Your task to perform on an android device: Open Google Chrome Image 0: 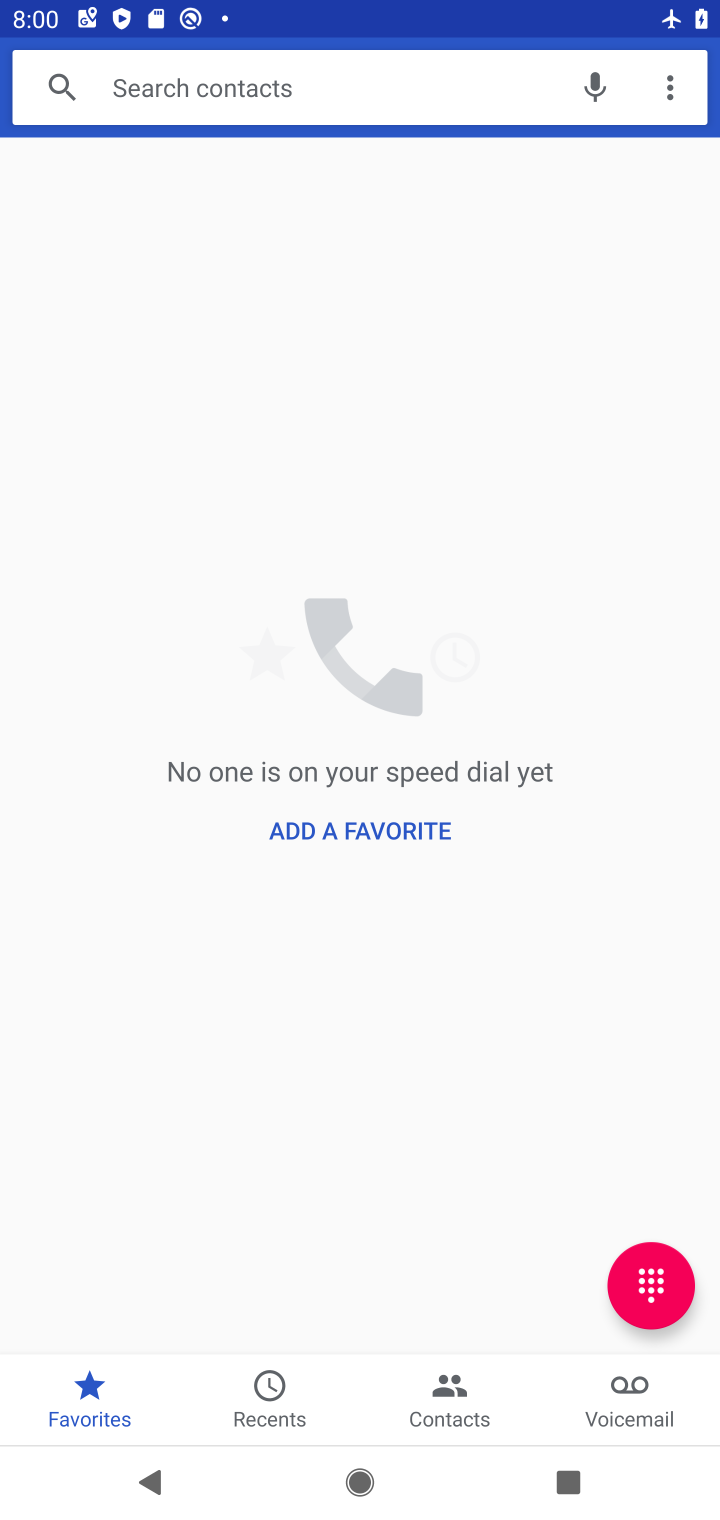
Step 0: press home button
Your task to perform on an android device: Open Google Chrome Image 1: 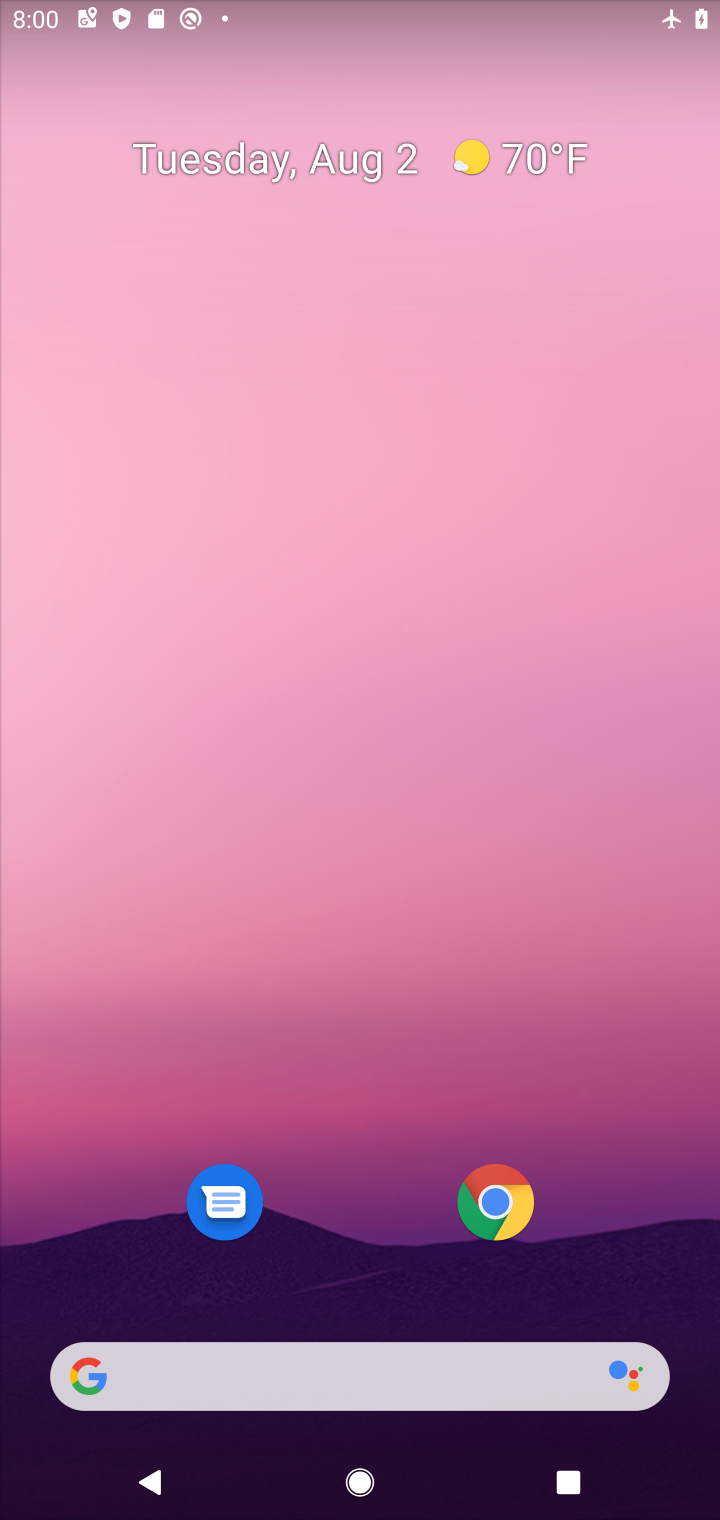
Step 1: click (493, 1235)
Your task to perform on an android device: Open Google Chrome Image 2: 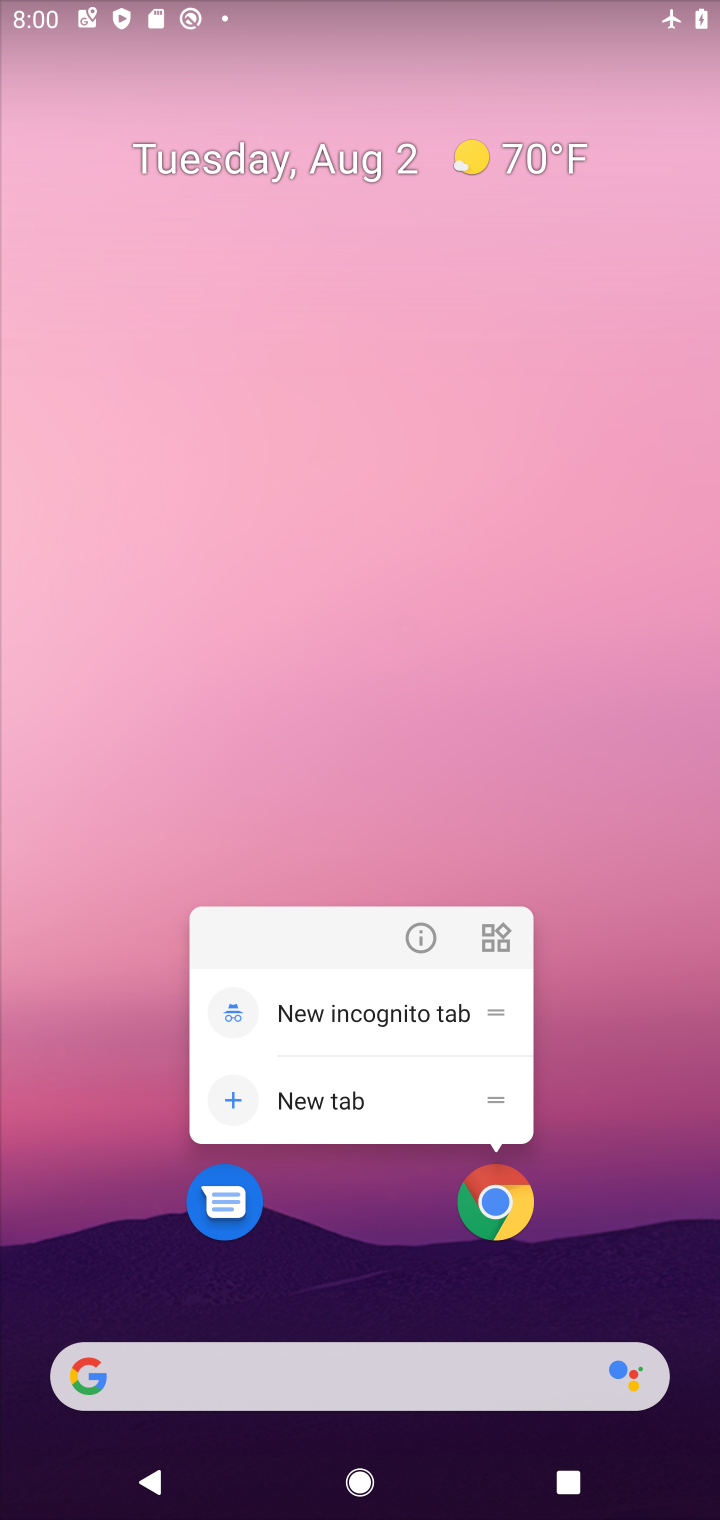
Step 2: click (492, 1206)
Your task to perform on an android device: Open Google Chrome Image 3: 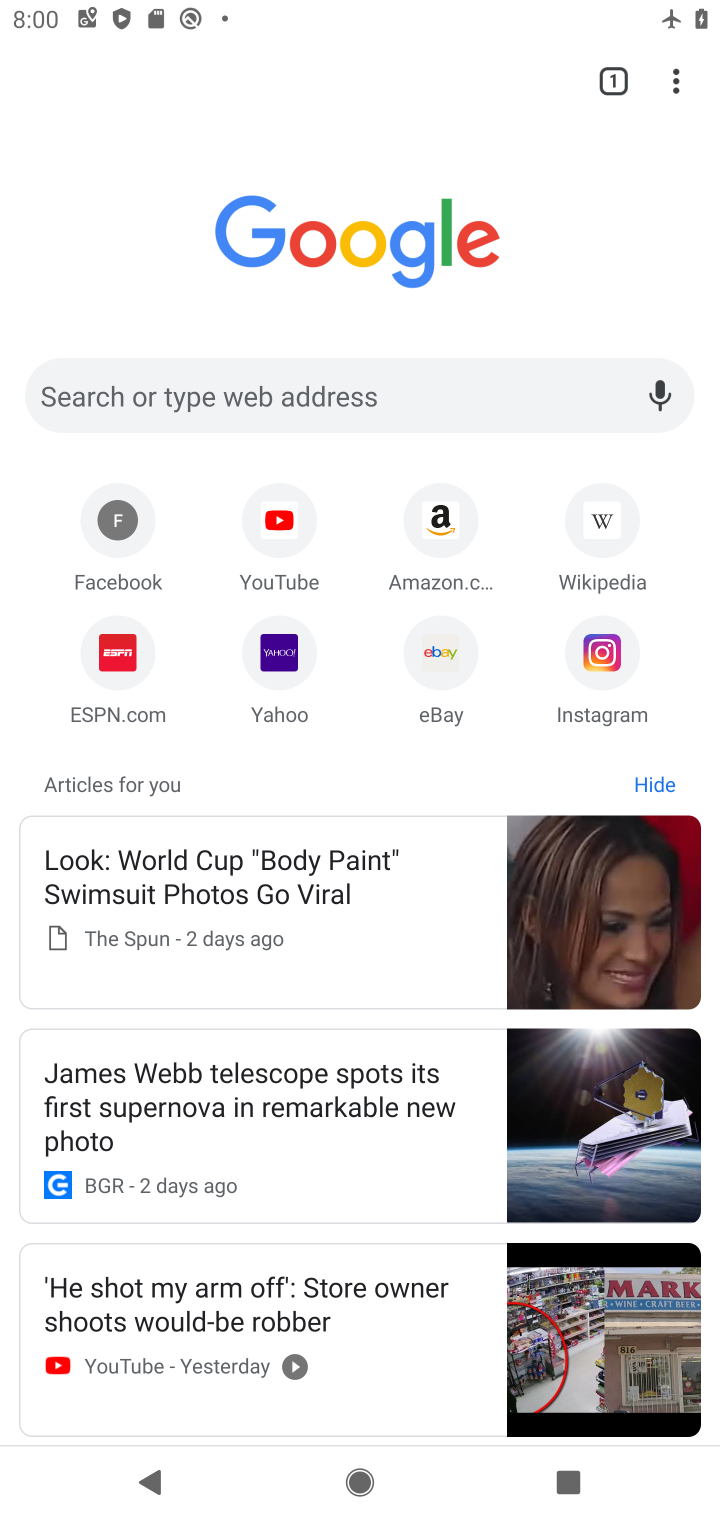
Step 3: task complete